Your task to perform on an android device: turn on notifications settings in the gmail app Image 0: 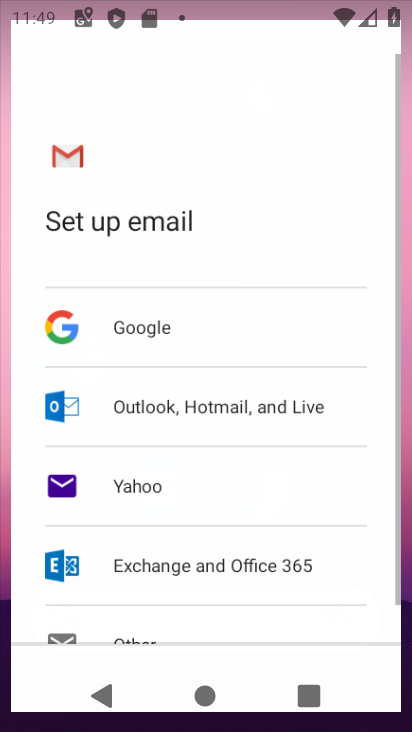
Step 0: drag from (318, 522) to (320, 99)
Your task to perform on an android device: turn on notifications settings in the gmail app Image 1: 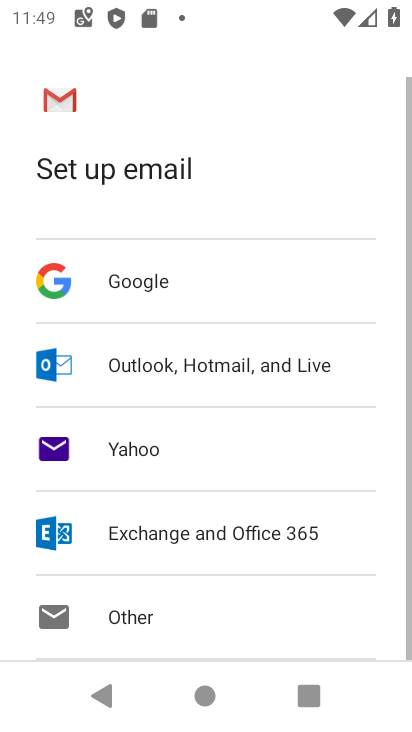
Step 1: press home button
Your task to perform on an android device: turn on notifications settings in the gmail app Image 2: 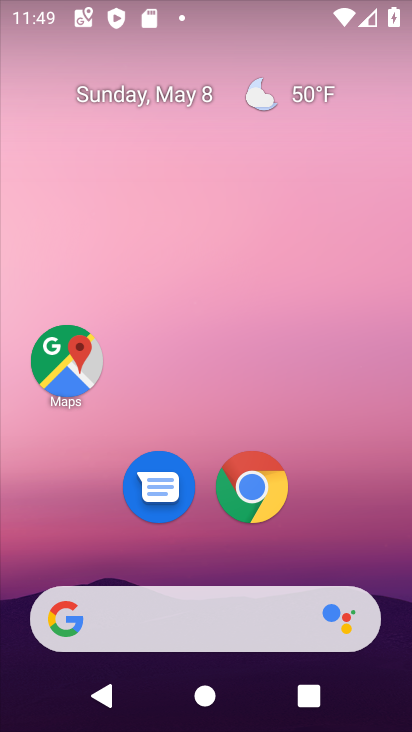
Step 2: drag from (316, 533) to (287, 60)
Your task to perform on an android device: turn on notifications settings in the gmail app Image 3: 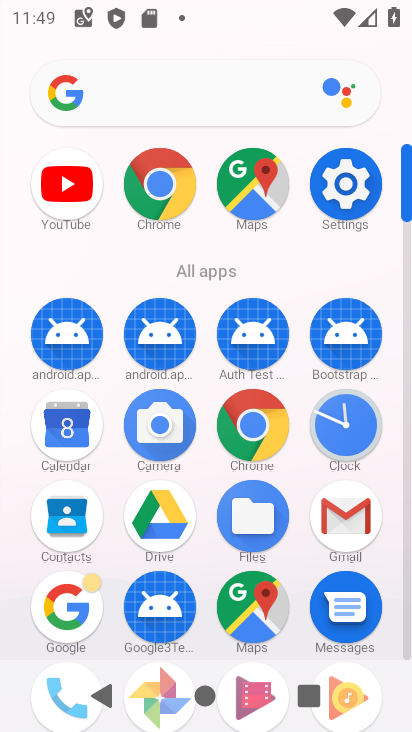
Step 3: click (349, 498)
Your task to perform on an android device: turn on notifications settings in the gmail app Image 4: 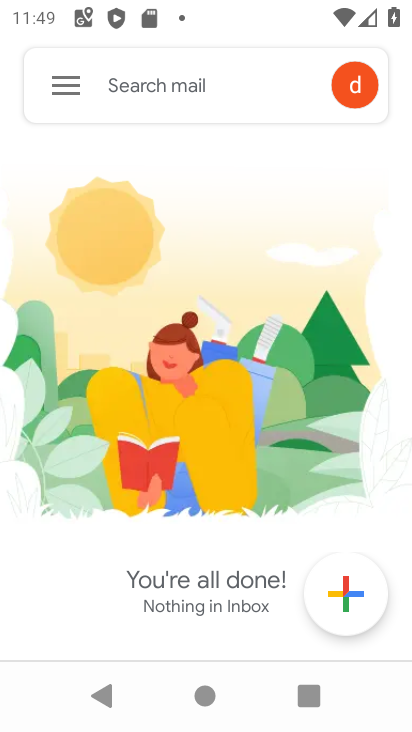
Step 4: click (73, 85)
Your task to perform on an android device: turn on notifications settings in the gmail app Image 5: 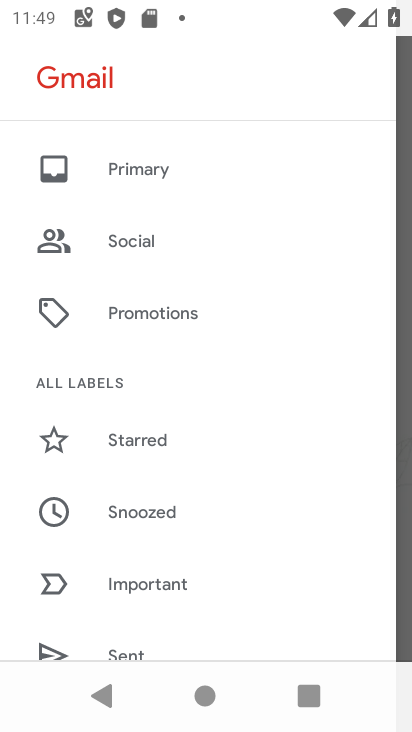
Step 5: drag from (215, 615) to (203, 222)
Your task to perform on an android device: turn on notifications settings in the gmail app Image 6: 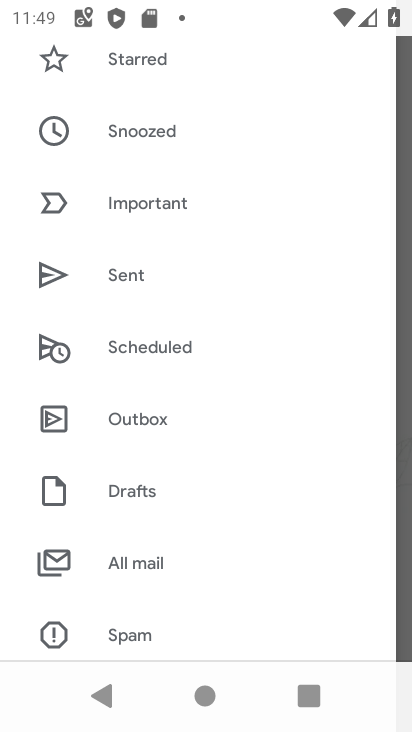
Step 6: drag from (160, 576) to (164, 253)
Your task to perform on an android device: turn on notifications settings in the gmail app Image 7: 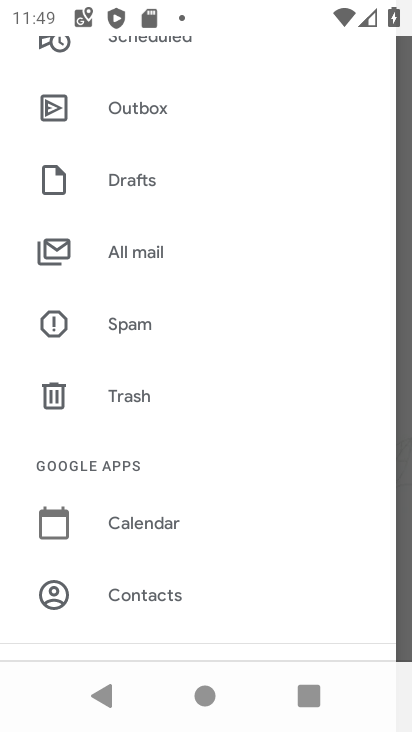
Step 7: drag from (220, 619) to (229, 299)
Your task to perform on an android device: turn on notifications settings in the gmail app Image 8: 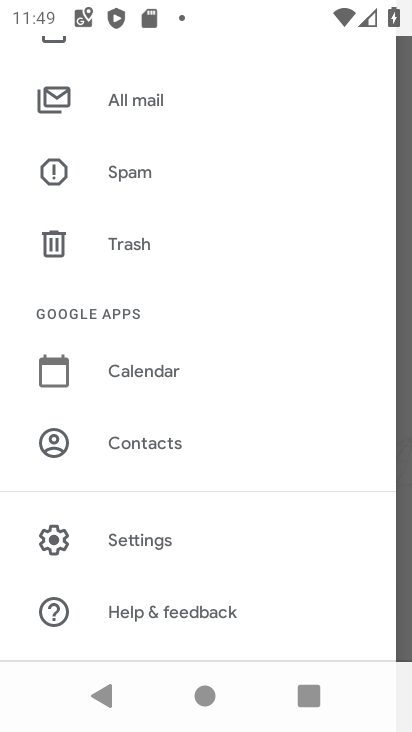
Step 8: click (125, 535)
Your task to perform on an android device: turn on notifications settings in the gmail app Image 9: 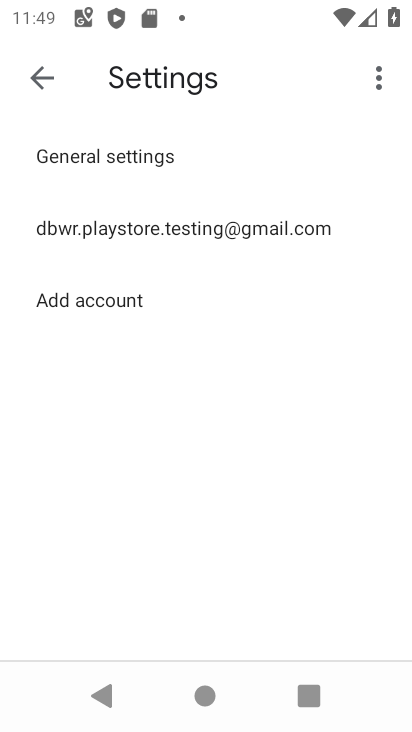
Step 9: click (208, 232)
Your task to perform on an android device: turn on notifications settings in the gmail app Image 10: 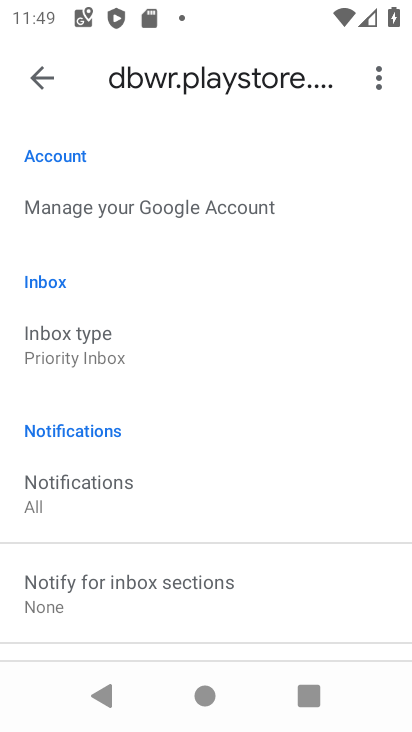
Step 10: click (112, 508)
Your task to perform on an android device: turn on notifications settings in the gmail app Image 11: 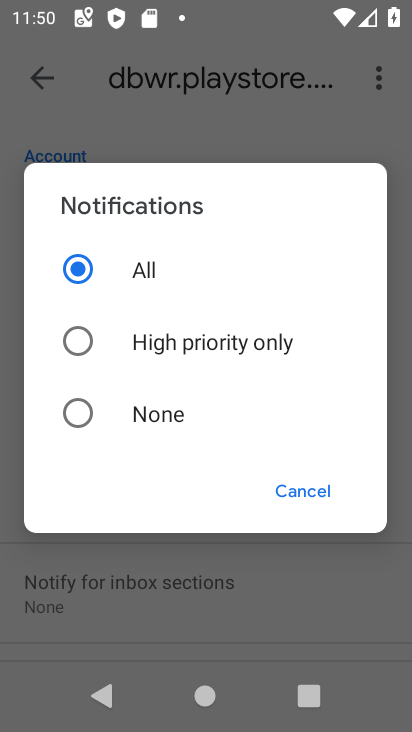
Step 11: task complete